Your task to perform on an android device: Show me recent news Image 0: 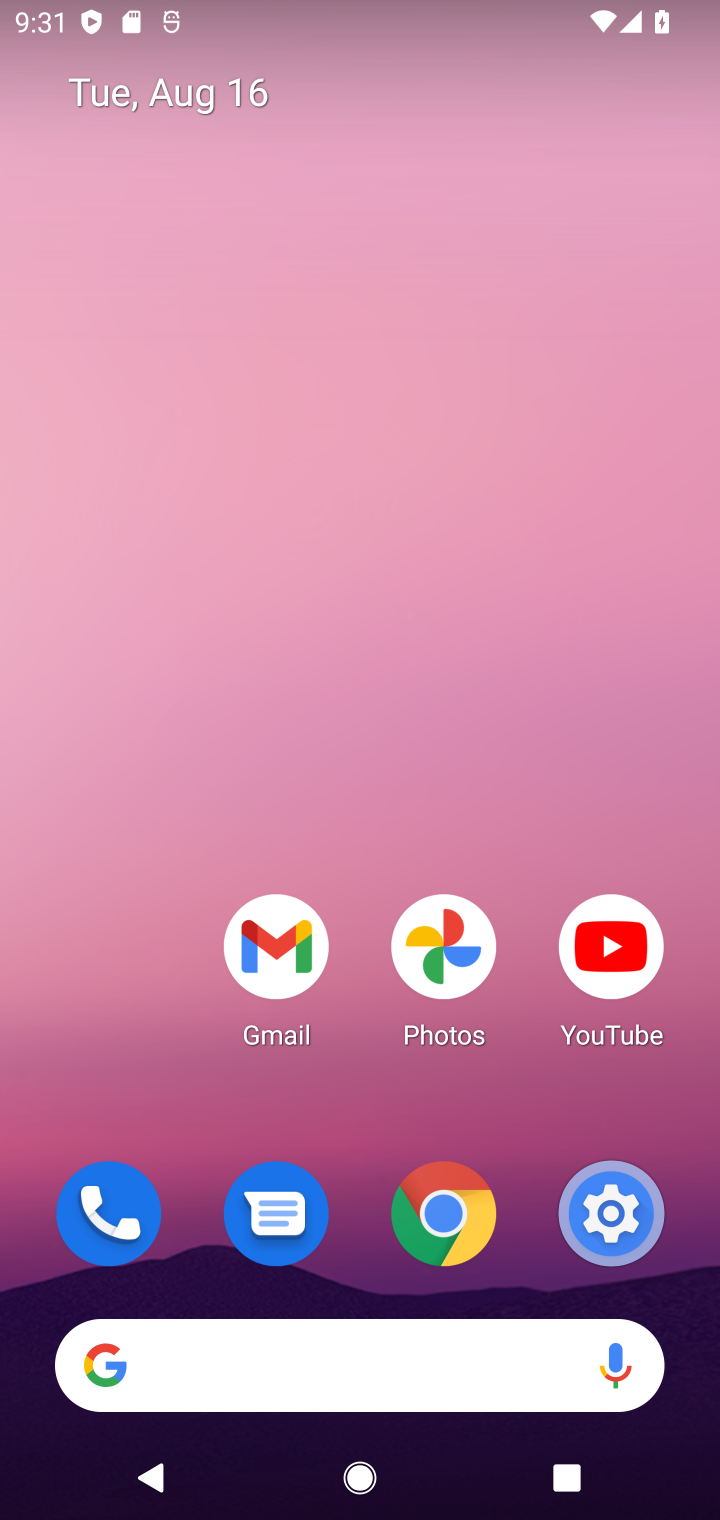
Step 0: drag from (487, 1205) to (575, 217)
Your task to perform on an android device: Show me recent news Image 1: 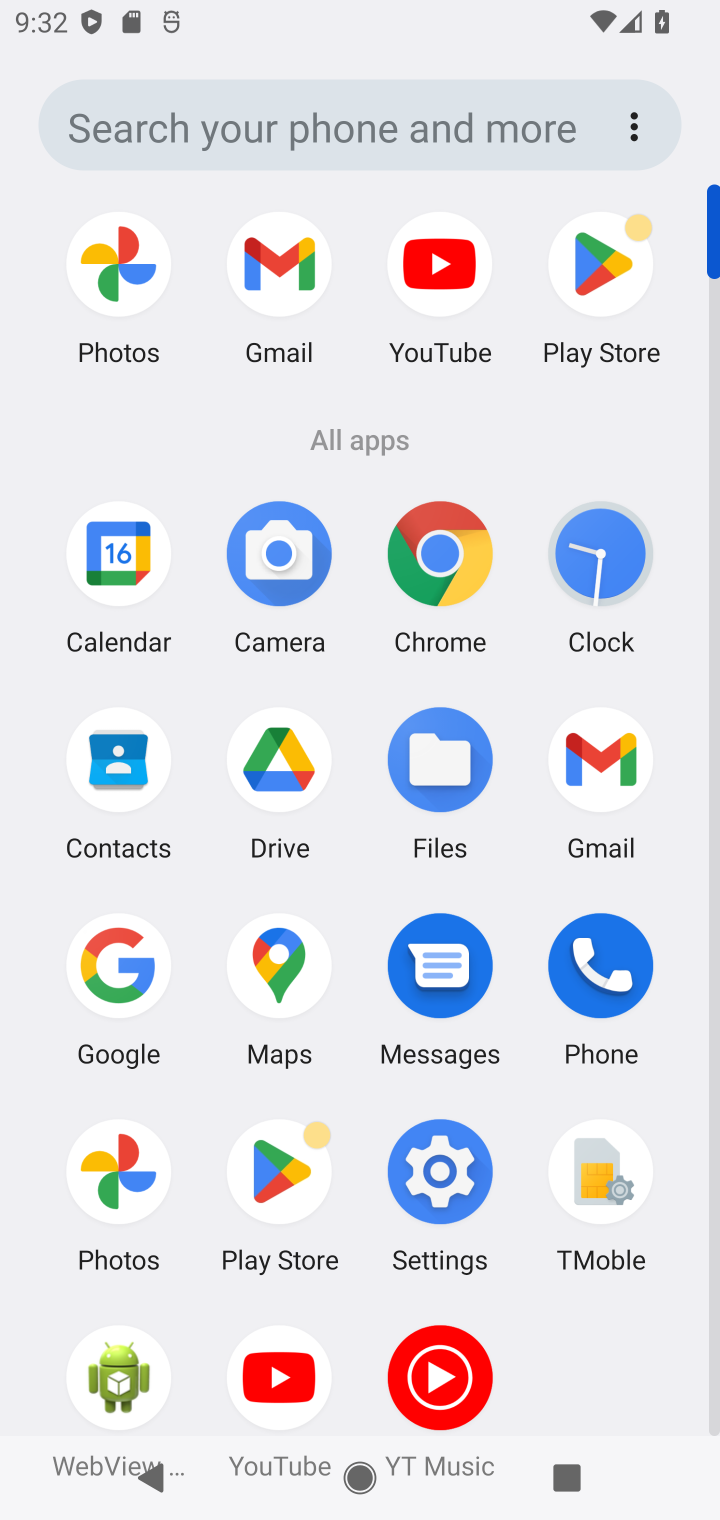
Step 1: click (445, 548)
Your task to perform on an android device: Show me recent news Image 2: 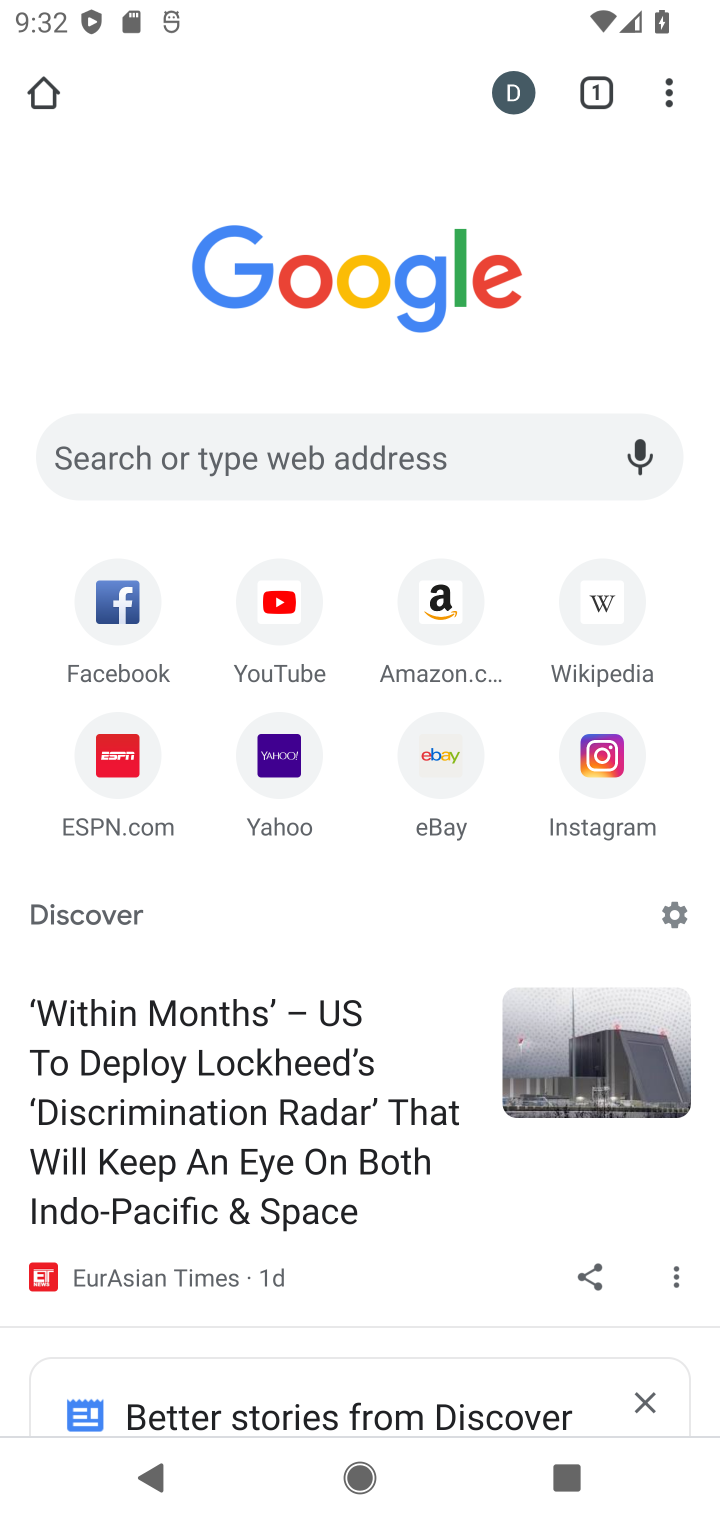
Step 2: click (282, 441)
Your task to perform on an android device: Show me recent news Image 3: 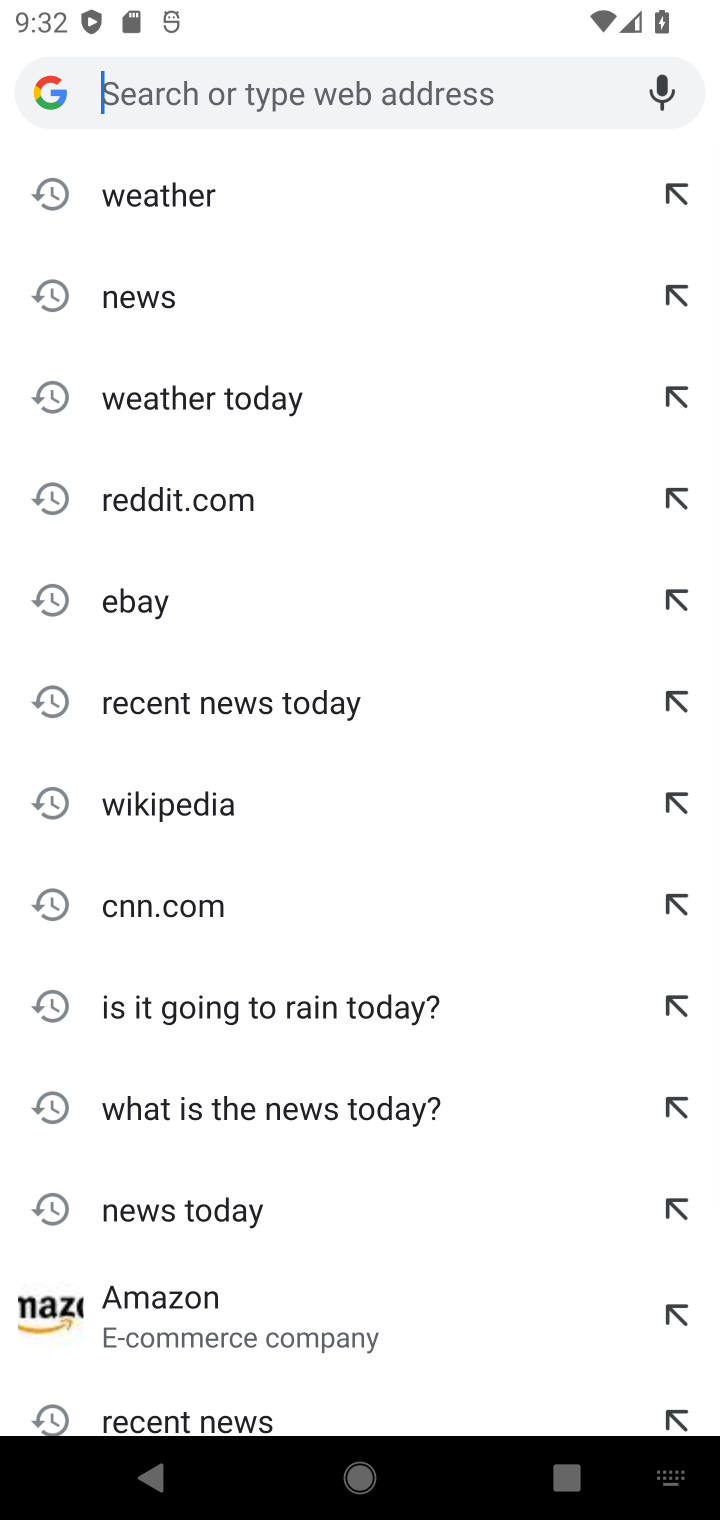
Step 3: type "Show me recent news "
Your task to perform on an android device: Show me recent news Image 4: 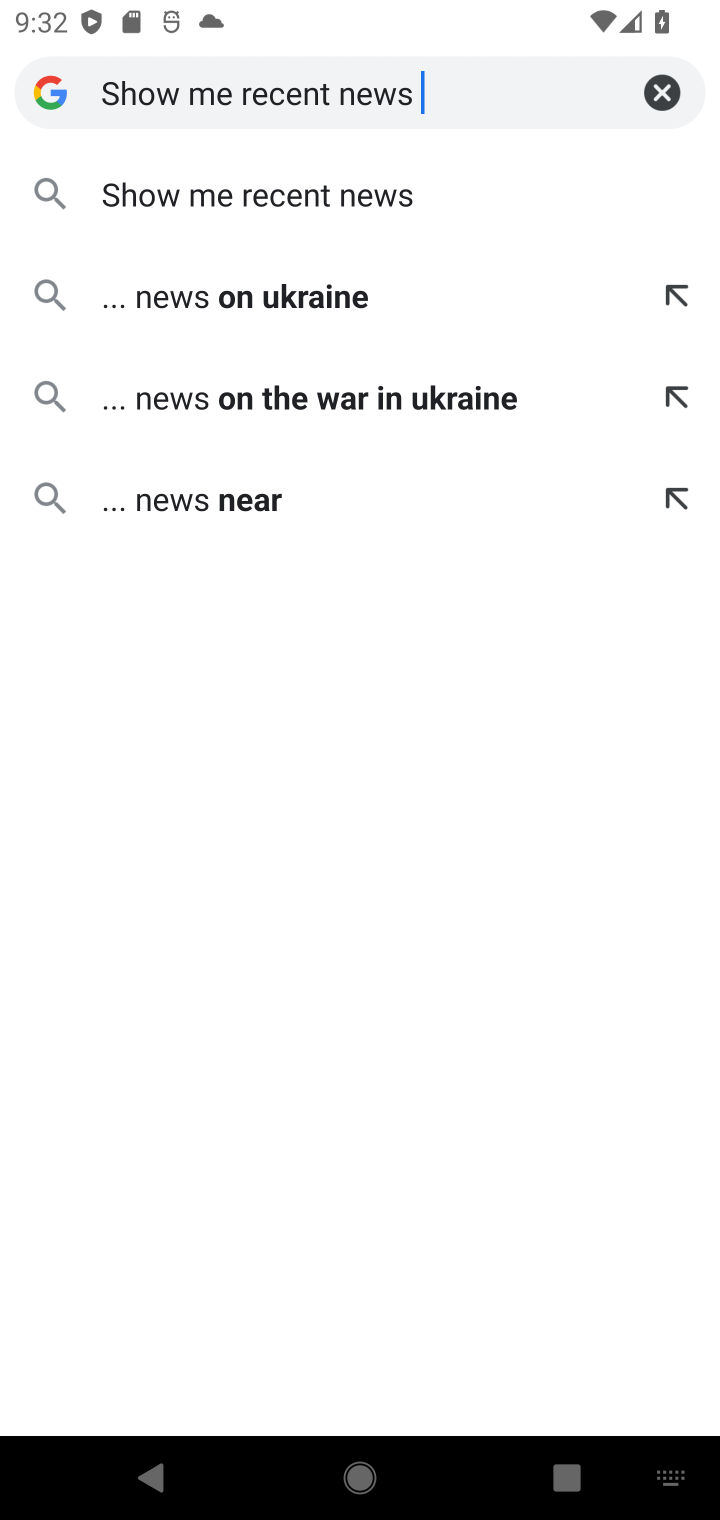
Step 4: click (327, 181)
Your task to perform on an android device: Show me recent news Image 5: 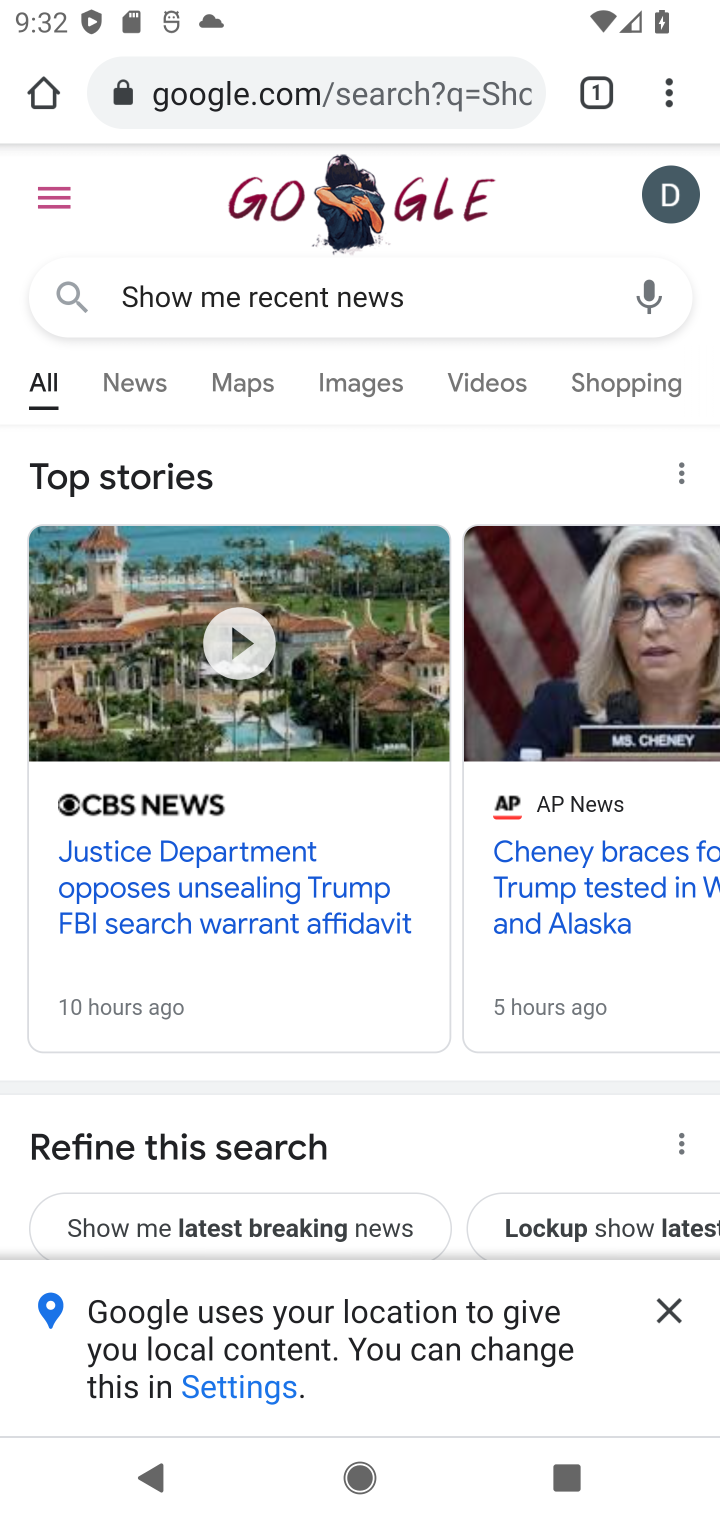
Step 5: task complete